Your task to perform on an android device: Open Google Chrome and click the shortcut for Amazon.com Image 0: 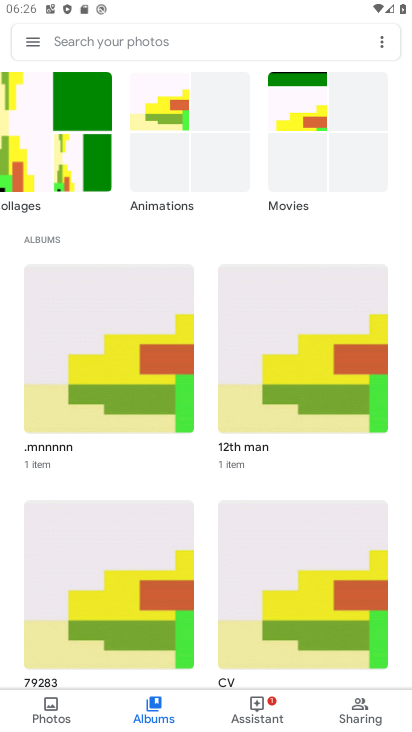
Step 0: press home button
Your task to perform on an android device: Open Google Chrome and click the shortcut for Amazon.com Image 1: 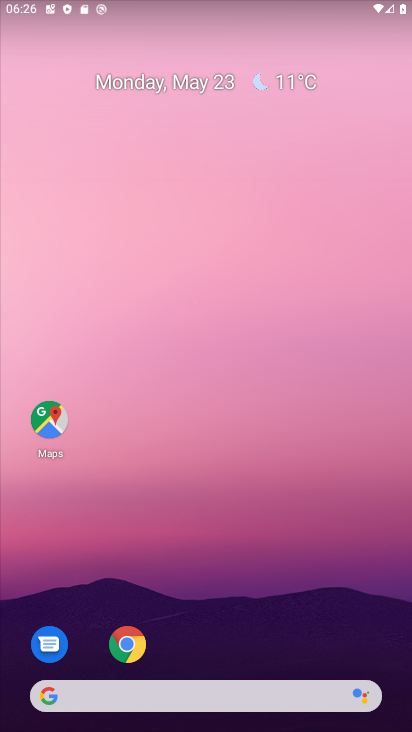
Step 1: click (126, 642)
Your task to perform on an android device: Open Google Chrome and click the shortcut for Amazon.com Image 2: 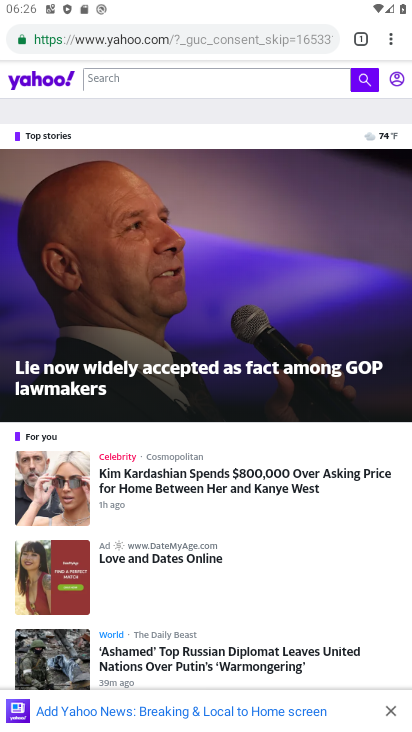
Step 2: press back button
Your task to perform on an android device: Open Google Chrome and click the shortcut for Amazon.com Image 3: 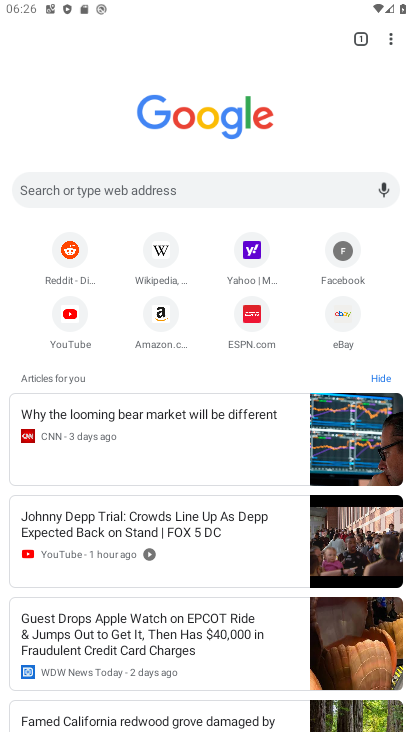
Step 3: click (157, 325)
Your task to perform on an android device: Open Google Chrome and click the shortcut for Amazon.com Image 4: 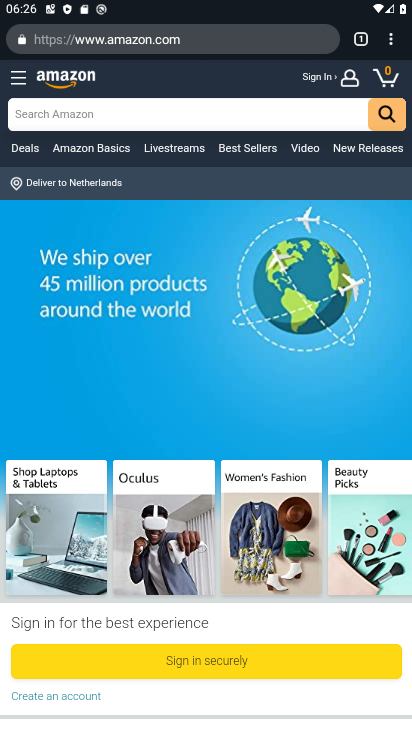
Step 4: task complete